Your task to perform on an android device: Go to Maps Image 0: 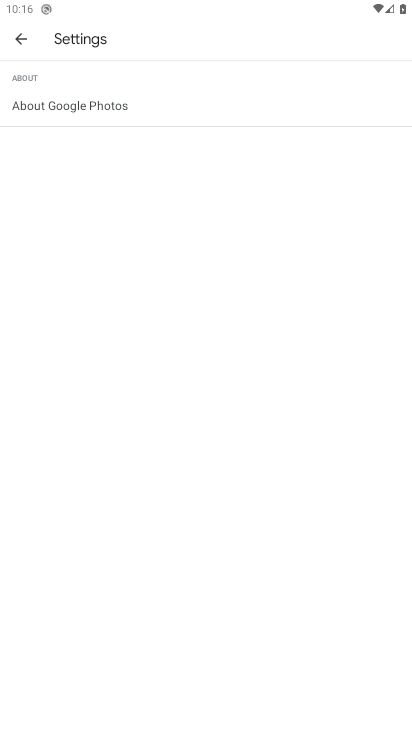
Step 0: press home button
Your task to perform on an android device: Go to Maps Image 1: 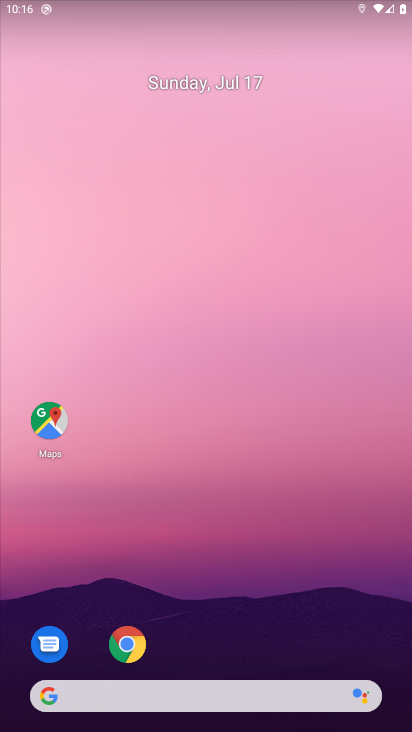
Step 1: click (45, 418)
Your task to perform on an android device: Go to Maps Image 2: 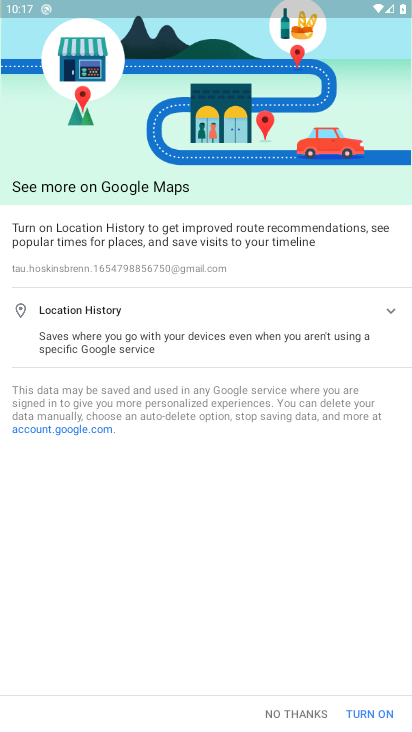
Step 2: click (376, 705)
Your task to perform on an android device: Go to Maps Image 3: 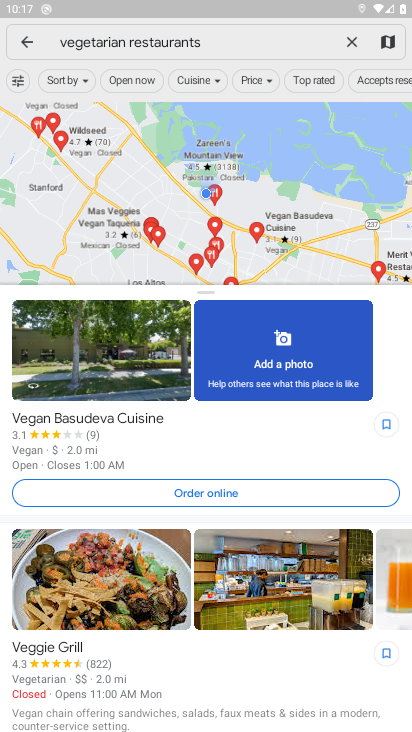
Step 3: click (15, 39)
Your task to perform on an android device: Go to Maps Image 4: 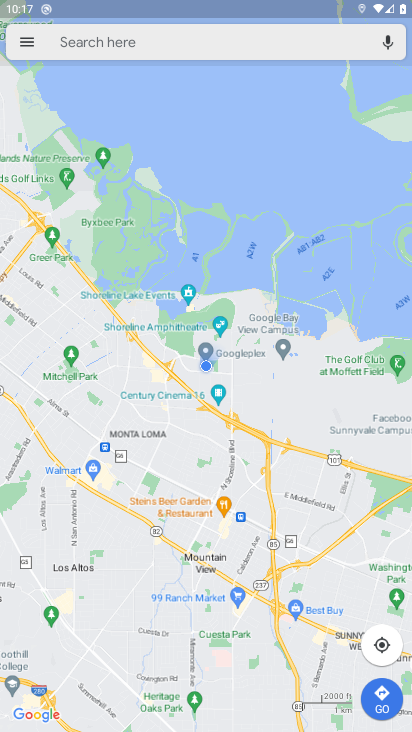
Step 4: task complete